Your task to perform on an android device: What is the recent news? Image 0: 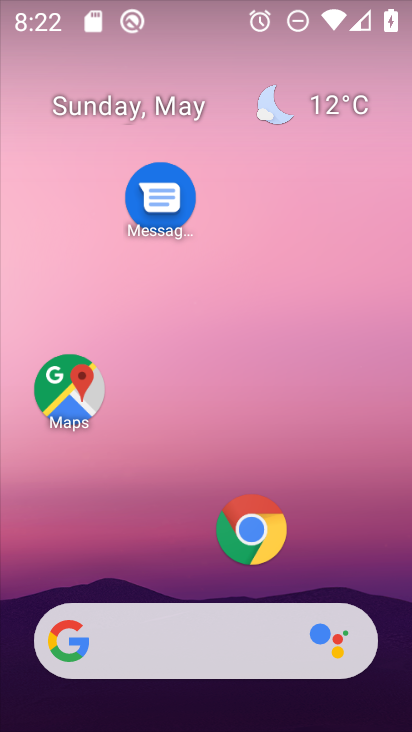
Step 0: press home button
Your task to perform on an android device: What is the recent news? Image 1: 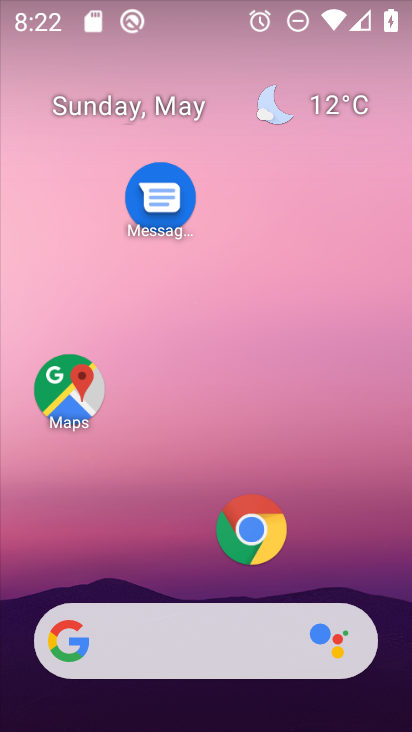
Step 1: task complete